Your task to perform on an android device: toggle data saver in the chrome app Image 0: 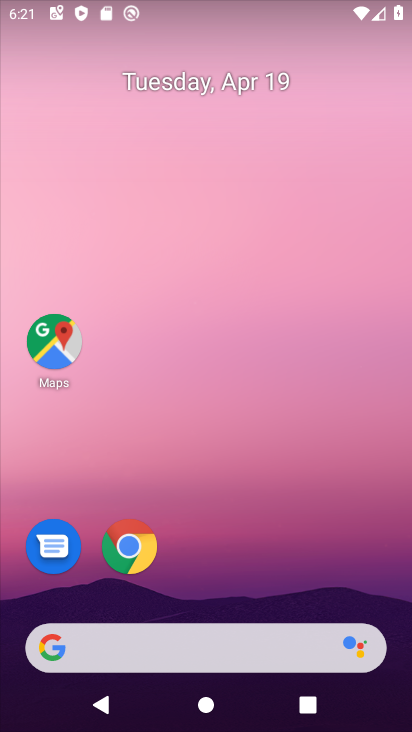
Step 0: drag from (285, 573) to (363, 38)
Your task to perform on an android device: toggle data saver in the chrome app Image 1: 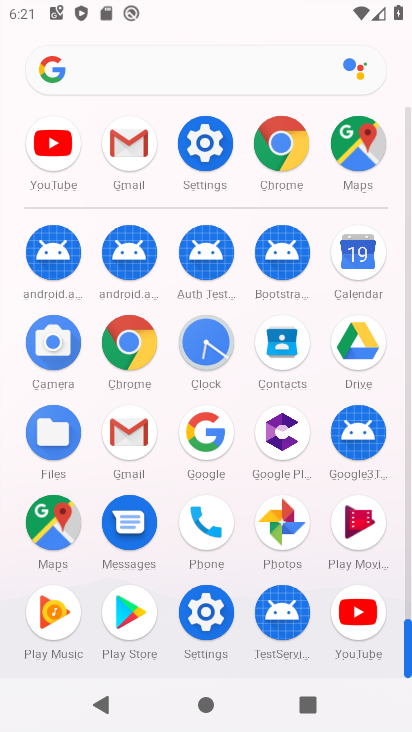
Step 1: click (130, 349)
Your task to perform on an android device: toggle data saver in the chrome app Image 2: 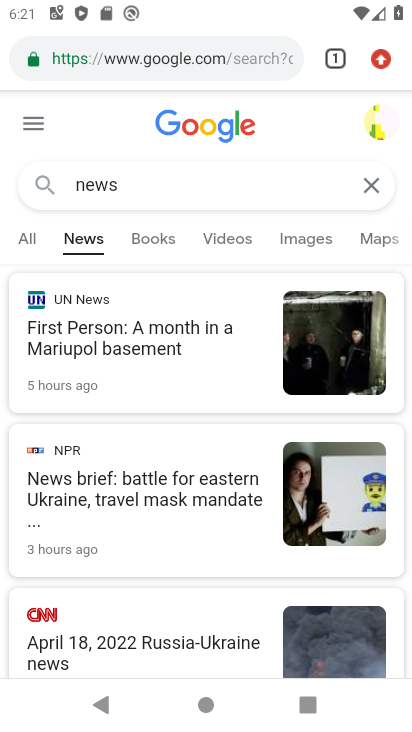
Step 2: drag from (395, 56) to (205, 571)
Your task to perform on an android device: toggle data saver in the chrome app Image 3: 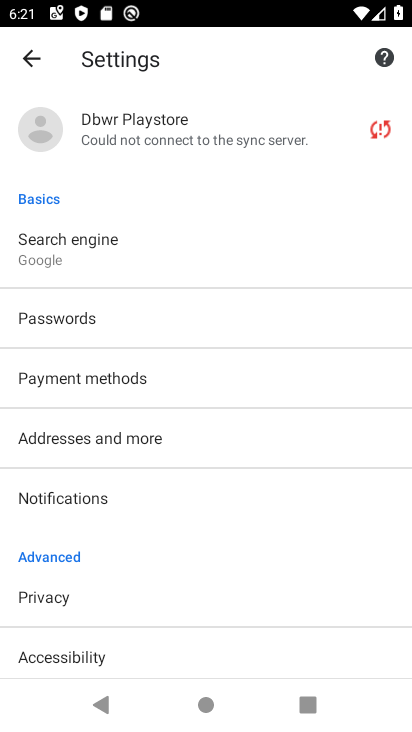
Step 3: drag from (222, 612) to (285, 176)
Your task to perform on an android device: toggle data saver in the chrome app Image 4: 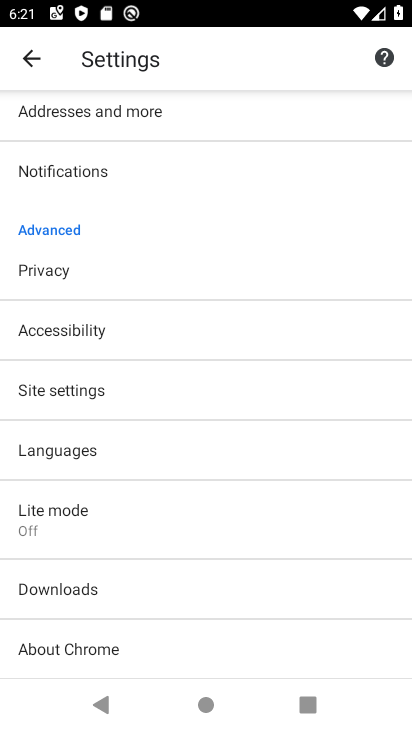
Step 4: drag from (213, 487) to (292, 226)
Your task to perform on an android device: toggle data saver in the chrome app Image 5: 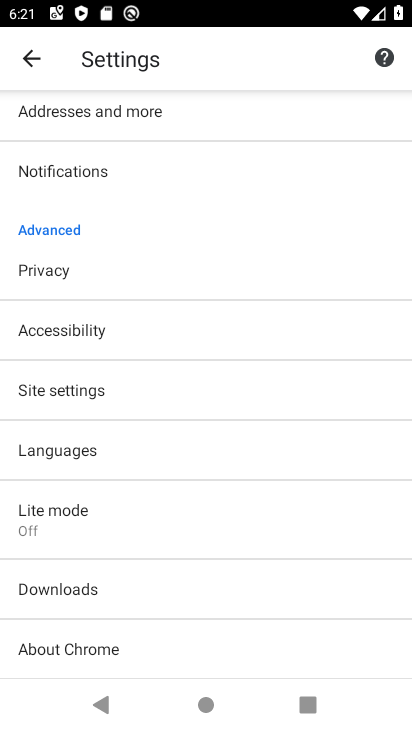
Step 5: click (109, 520)
Your task to perform on an android device: toggle data saver in the chrome app Image 6: 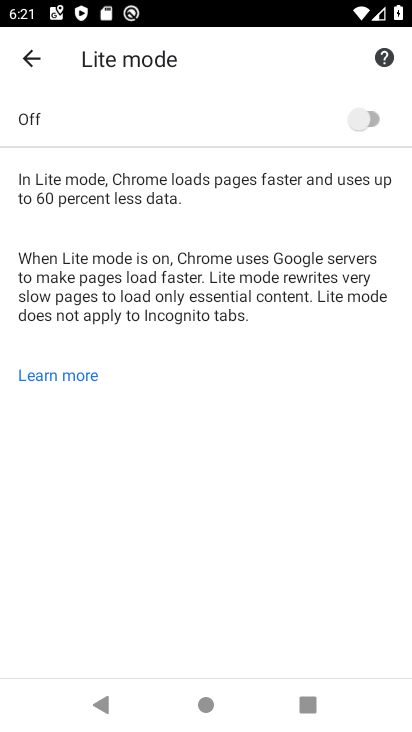
Step 6: click (310, 126)
Your task to perform on an android device: toggle data saver in the chrome app Image 7: 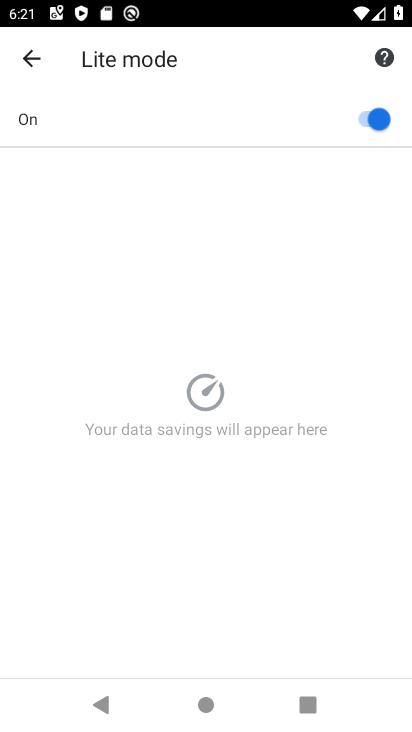
Step 7: task complete